Your task to perform on an android device: turn off smart reply in the gmail app Image 0: 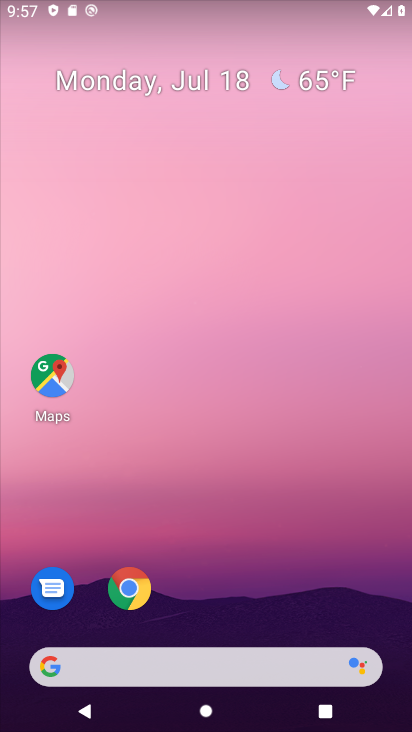
Step 0: press home button
Your task to perform on an android device: turn off smart reply in the gmail app Image 1: 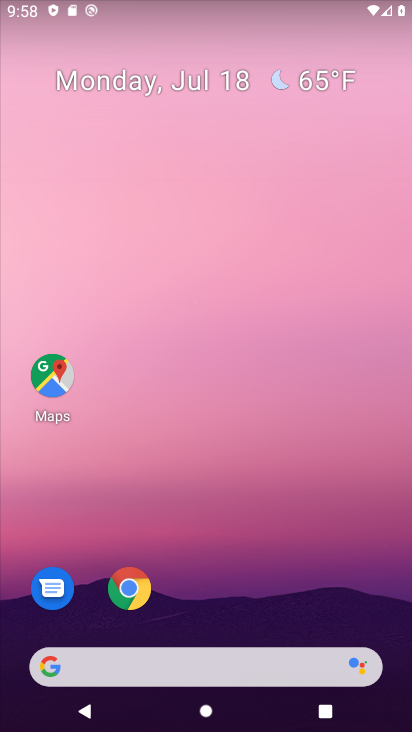
Step 1: drag from (295, 379) to (276, 30)
Your task to perform on an android device: turn off smart reply in the gmail app Image 2: 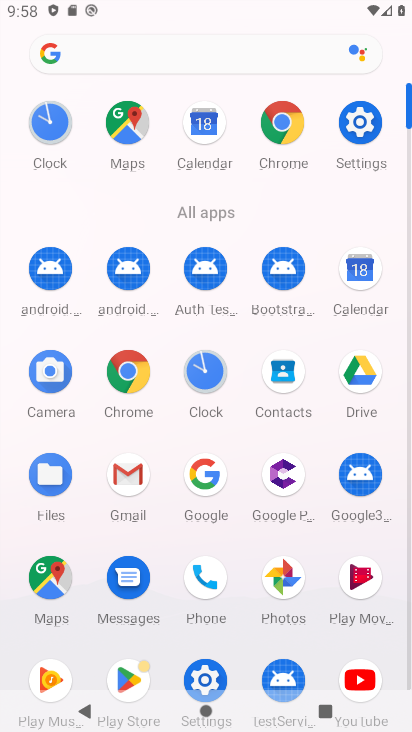
Step 2: click (127, 469)
Your task to perform on an android device: turn off smart reply in the gmail app Image 3: 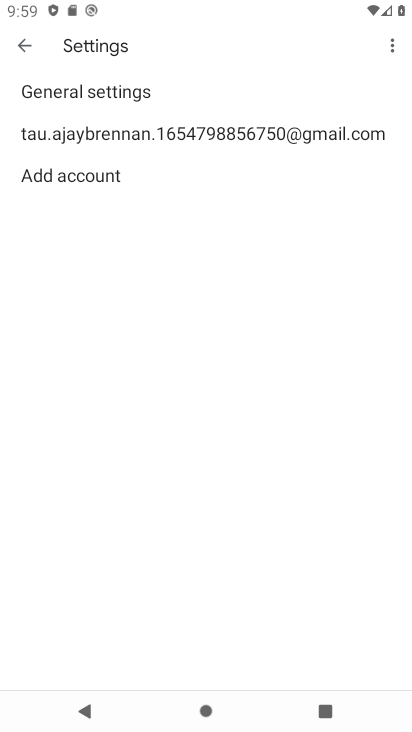
Step 3: click (68, 132)
Your task to perform on an android device: turn off smart reply in the gmail app Image 4: 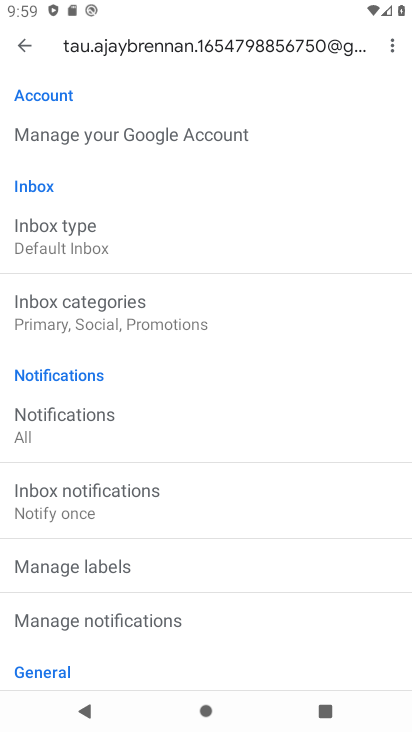
Step 4: drag from (284, 644) to (233, 238)
Your task to perform on an android device: turn off smart reply in the gmail app Image 5: 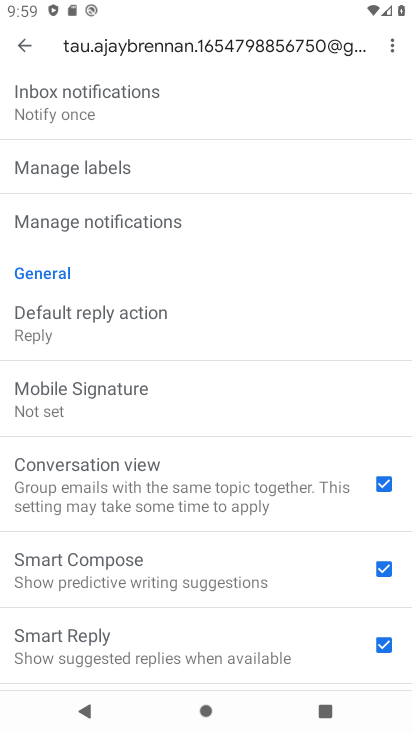
Step 5: drag from (249, 628) to (206, 398)
Your task to perform on an android device: turn off smart reply in the gmail app Image 6: 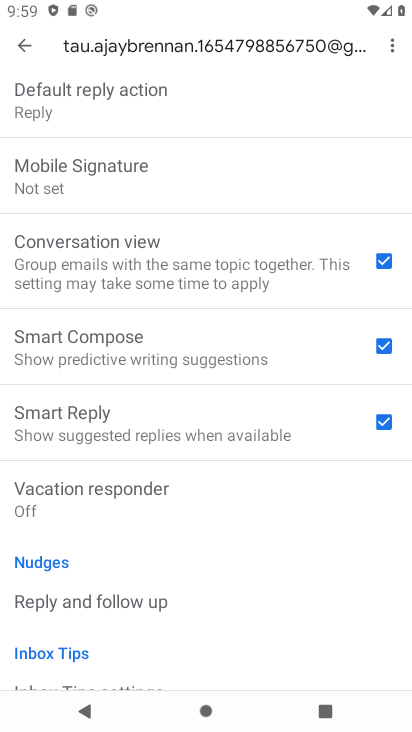
Step 6: click (383, 419)
Your task to perform on an android device: turn off smart reply in the gmail app Image 7: 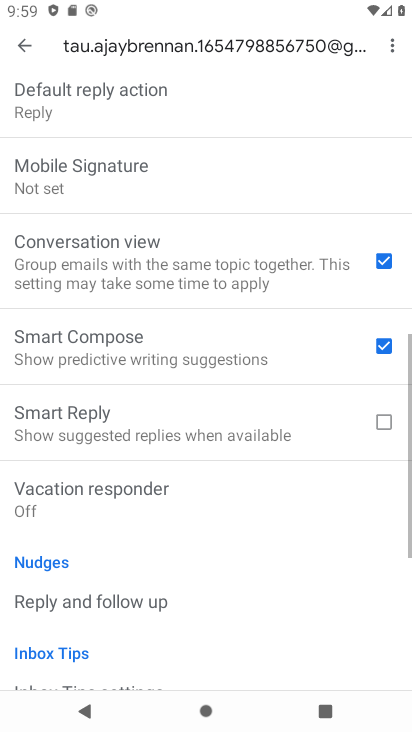
Step 7: task complete